Your task to perform on an android device: turn off wifi Image 0: 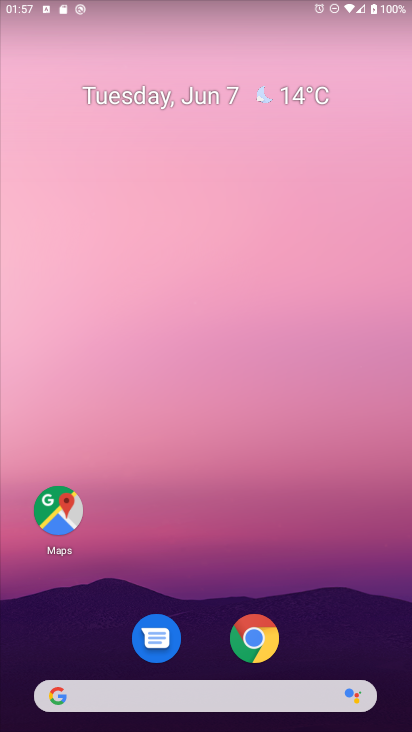
Step 0: drag from (258, 722) to (263, 100)
Your task to perform on an android device: turn off wifi Image 1: 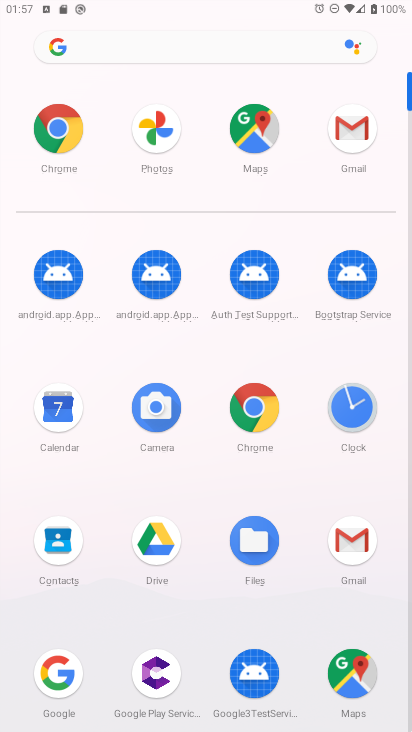
Step 1: drag from (208, 501) to (204, 306)
Your task to perform on an android device: turn off wifi Image 2: 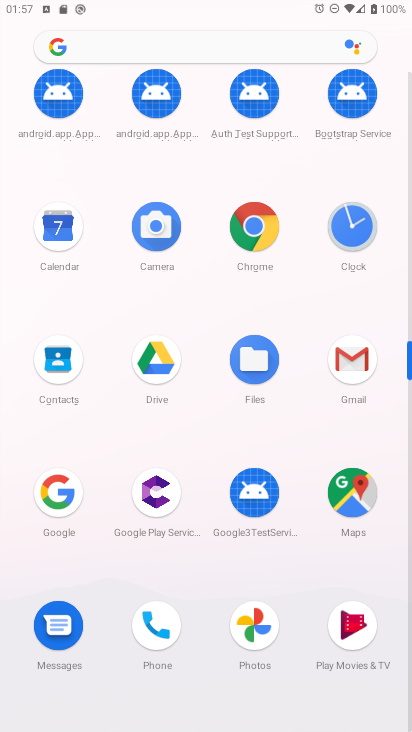
Step 2: click (196, 297)
Your task to perform on an android device: turn off wifi Image 3: 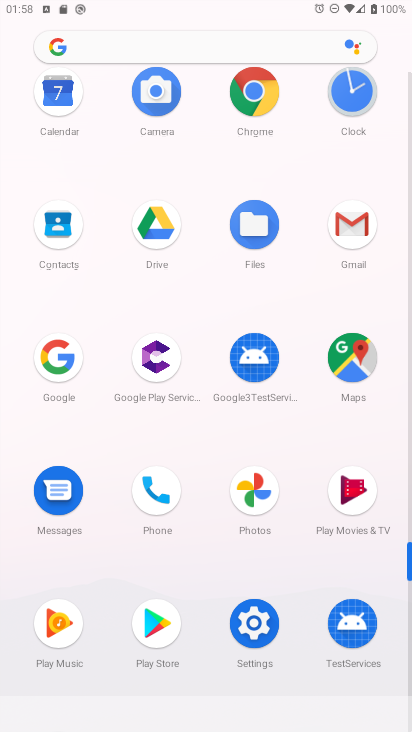
Step 3: click (257, 634)
Your task to perform on an android device: turn off wifi Image 4: 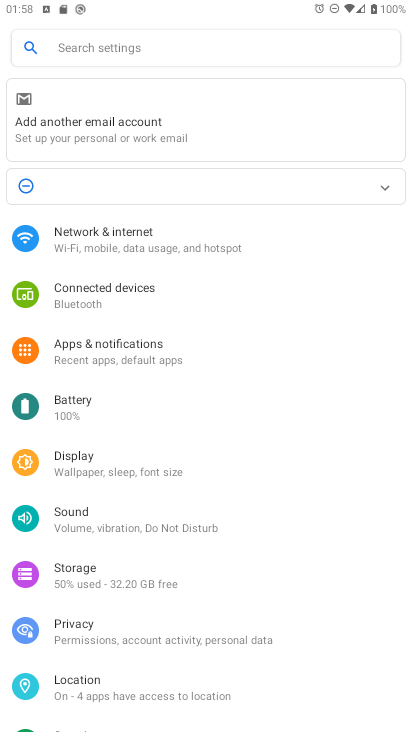
Step 4: click (135, 236)
Your task to perform on an android device: turn off wifi Image 5: 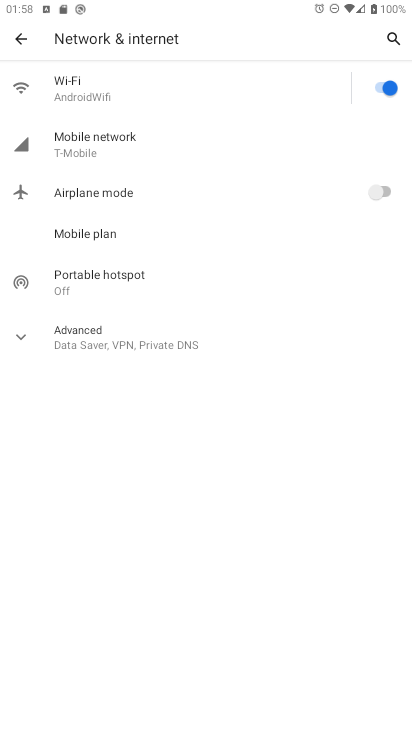
Step 5: click (113, 86)
Your task to perform on an android device: turn off wifi Image 6: 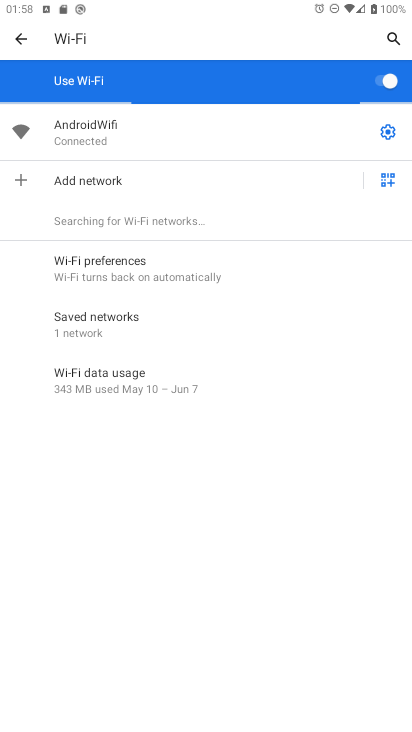
Step 6: click (386, 80)
Your task to perform on an android device: turn off wifi Image 7: 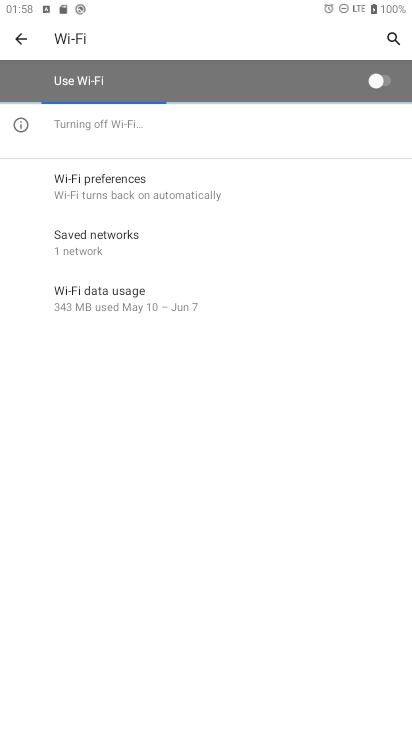
Step 7: task complete